Your task to perform on an android device: empty trash in the gmail app Image 0: 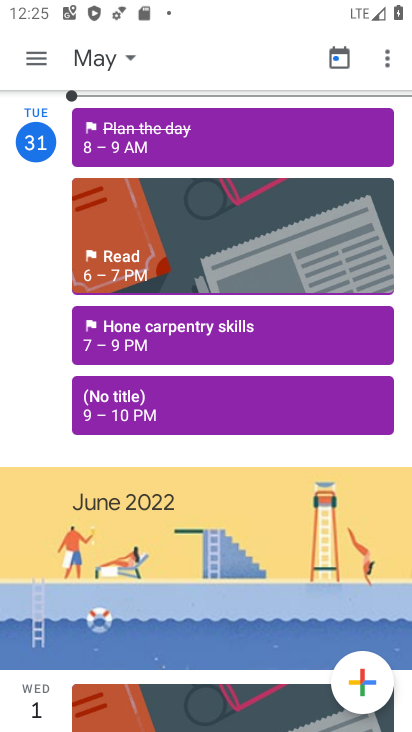
Step 0: press home button
Your task to perform on an android device: empty trash in the gmail app Image 1: 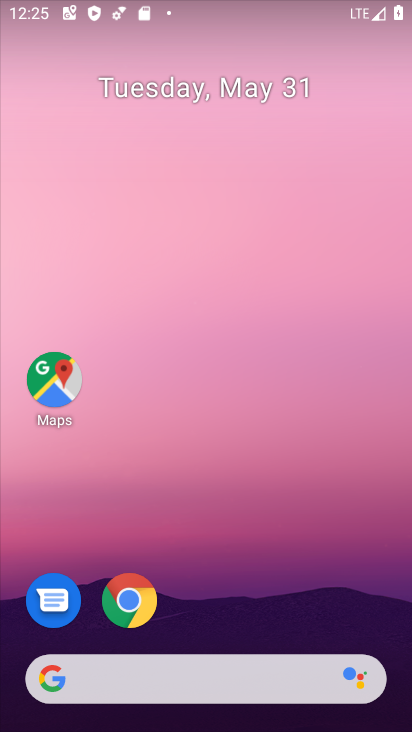
Step 1: drag from (193, 724) to (171, 72)
Your task to perform on an android device: empty trash in the gmail app Image 2: 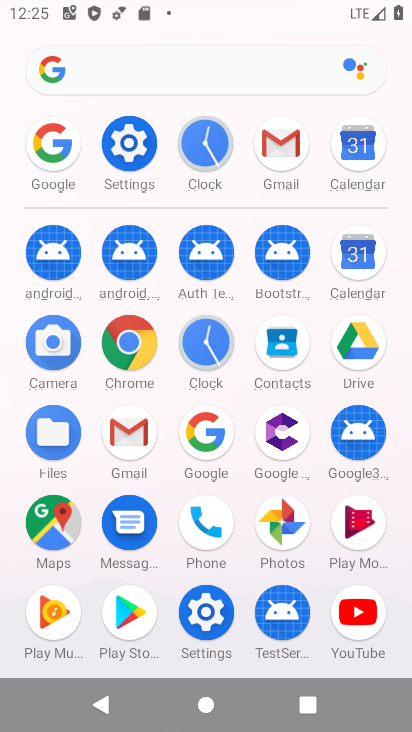
Step 2: click (122, 422)
Your task to perform on an android device: empty trash in the gmail app Image 3: 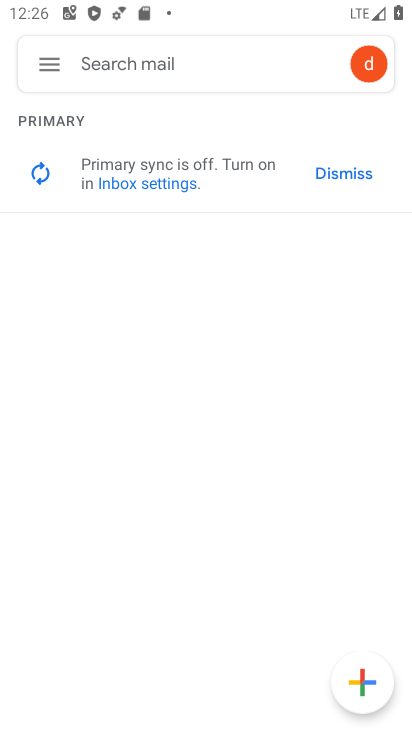
Step 3: click (50, 64)
Your task to perform on an android device: empty trash in the gmail app Image 4: 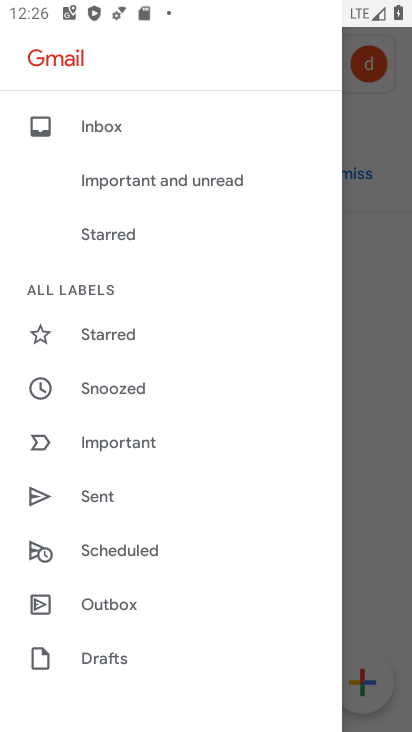
Step 4: drag from (110, 656) to (106, 293)
Your task to perform on an android device: empty trash in the gmail app Image 5: 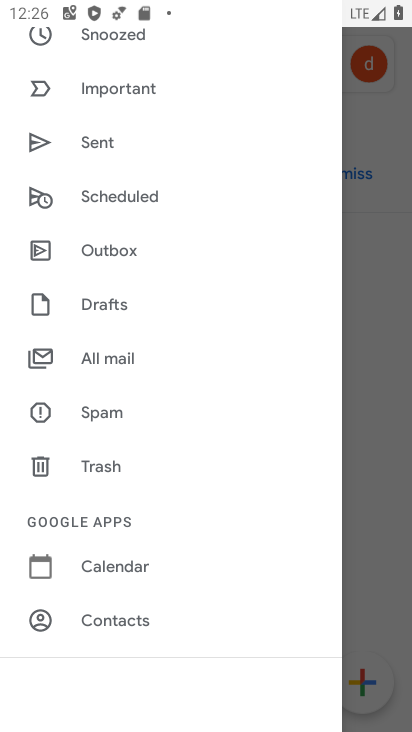
Step 5: click (102, 468)
Your task to perform on an android device: empty trash in the gmail app Image 6: 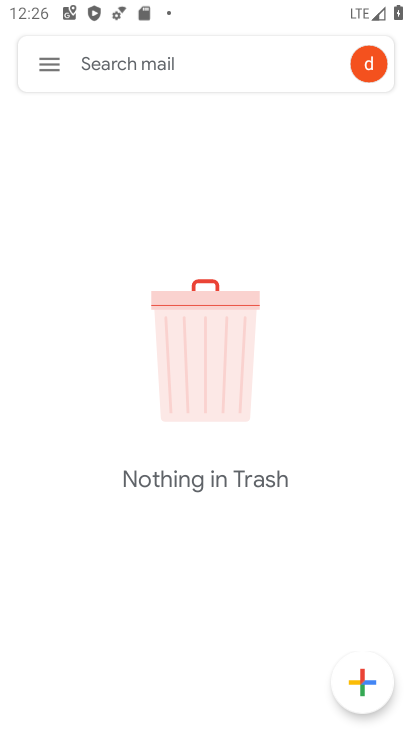
Step 6: task complete